Your task to perform on an android device: Go to internet settings Image 0: 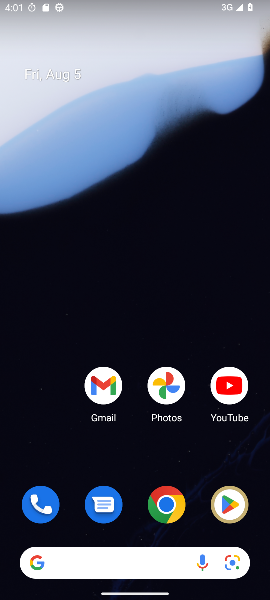
Step 0: drag from (50, 583) to (110, 233)
Your task to perform on an android device: Go to internet settings Image 1: 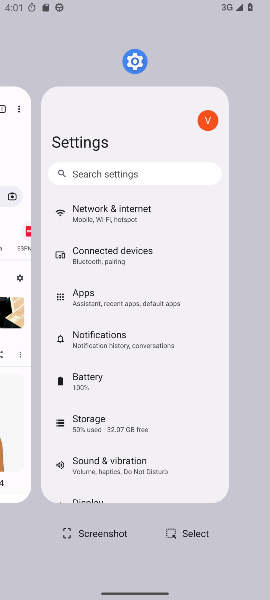
Step 1: click (188, 552)
Your task to perform on an android device: Go to internet settings Image 2: 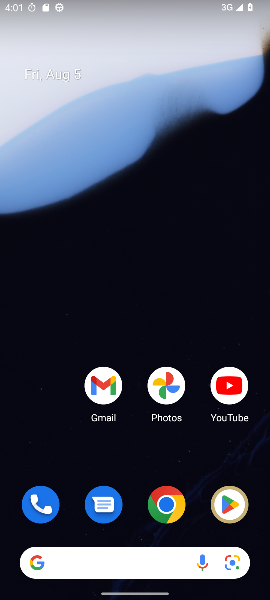
Step 2: click (205, 42)
Your task to perform on an android device: Go to internet settings Image 3: 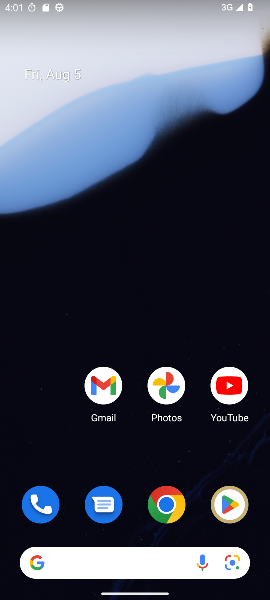
Step 3: drag from (44, 552) to (122, 91)
Your task to perform on an android device: Go to internet settings Image 4: 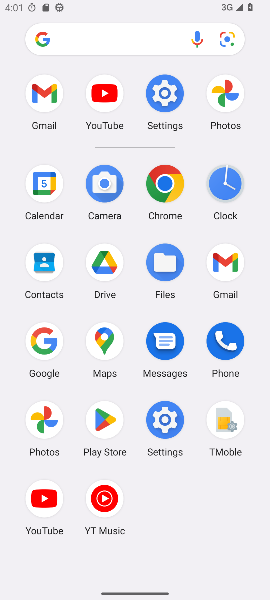
Step 4: click (169, 426)
Your task to perform on an android device: Go to internet settings Image 5: 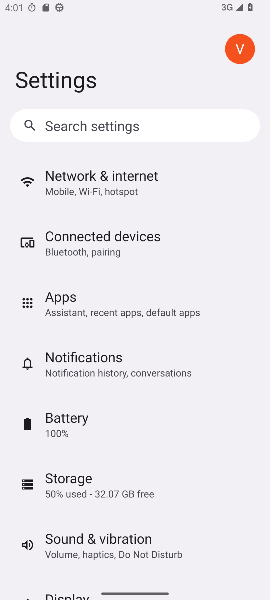
Step 5: click (115, 175)
Your task to perform on an android device: Go to internet settings Image 6: 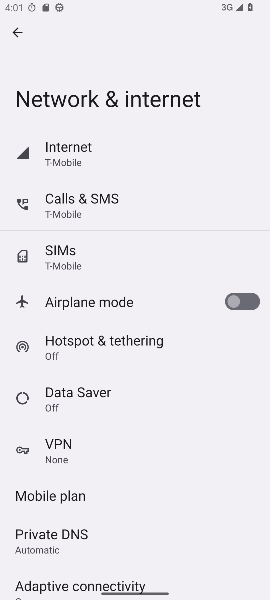
Step 6: click (90, 153)
Your task to perform on an android device: Go to internet settings Image 7: 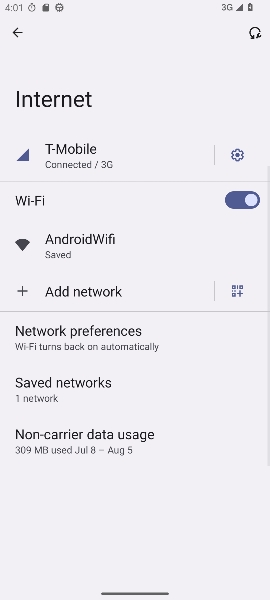
Step 7: task complete